Your task to perform on an android device: Show the shopping cart on costco.com. Add "razer blade" to the cart on costco.com Image 0: 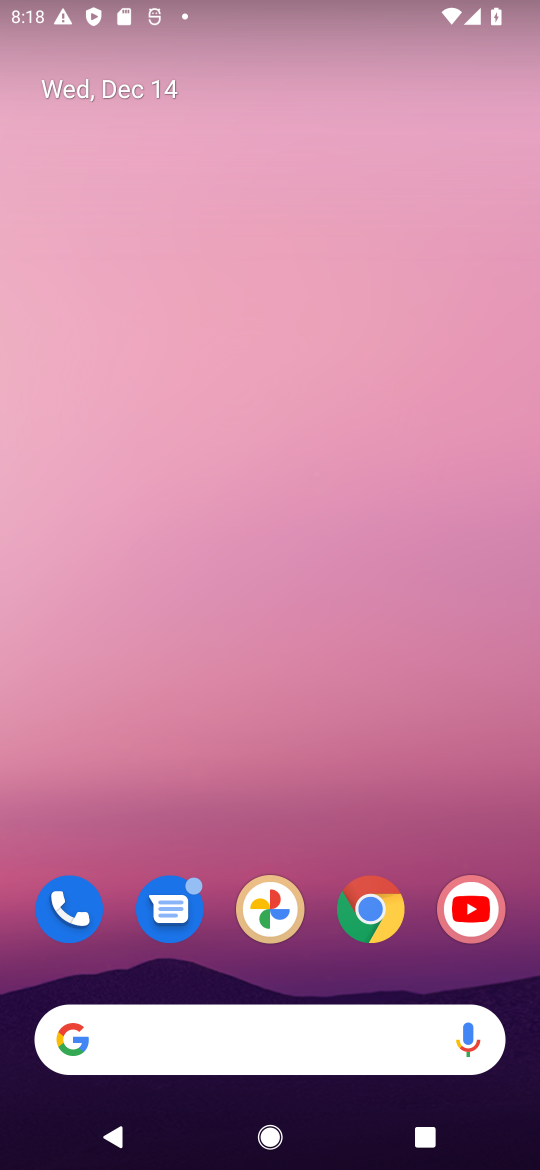
Step 0: click (352, 901)
Your task to perform on an android device: Show the shopping cart on costco.com. Add "razer blade" to the cart on costco.com Image 1: 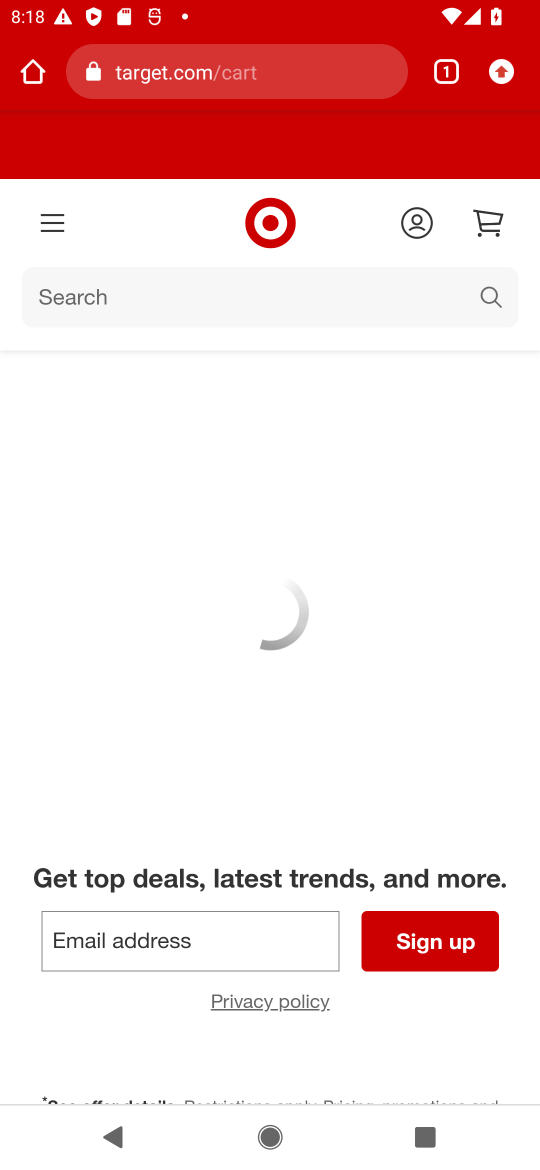
Step 1: click (28, 66)
Your task to perform on an android device: Show the shopping cart on costco.com. Add "razer blade" to the cart on costco.com Image 2: 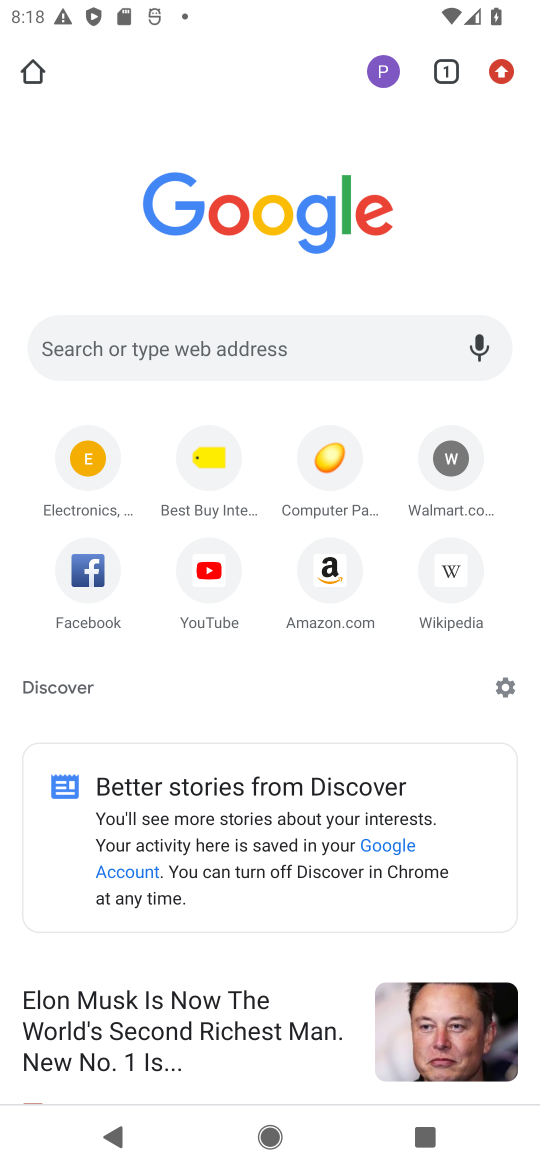
Step 2: click (295, 352)
Your task to perform on an android device: Show the shopping cart on costco.com. Add "razer blade" to the cart on costco.com Image 3: 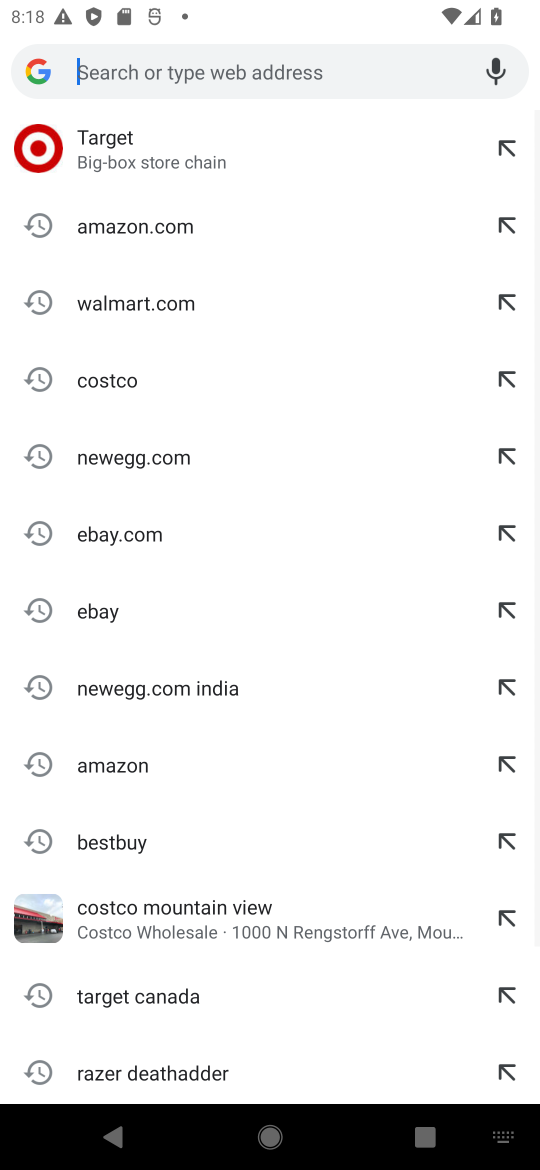
Step 3: click (94, 376)
Your task to perform on an android device: Show the shopping cart on costco.com. Add "razer blade" to the cart on costco.com Image 4: 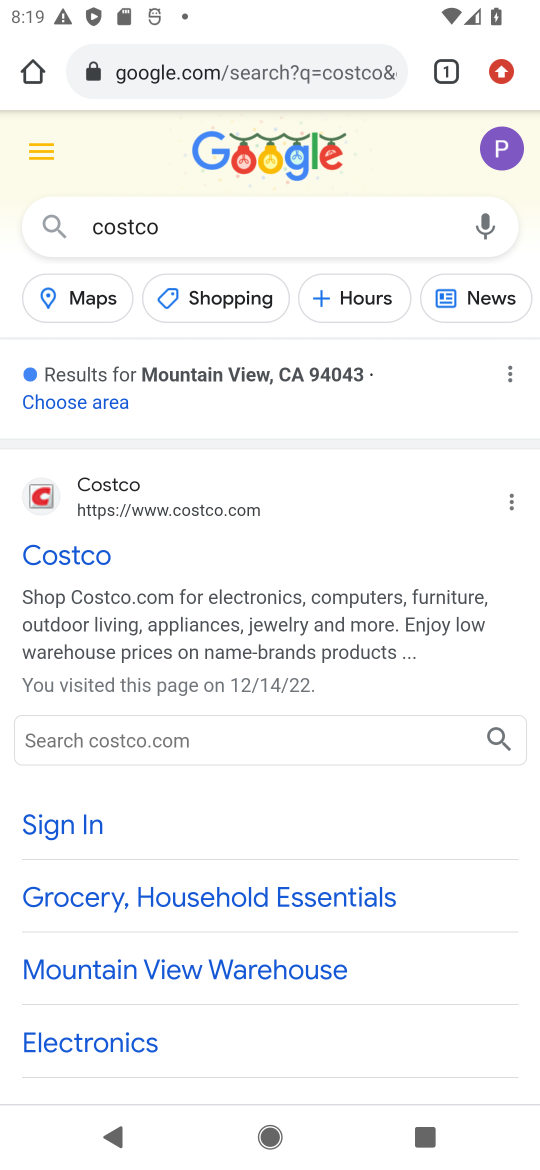
Step 4: click (156, 504)
Your task to perform on an android device: Show the shopping cart on costco.com. Add "razer blade" to the cart on costco.com Image 5: 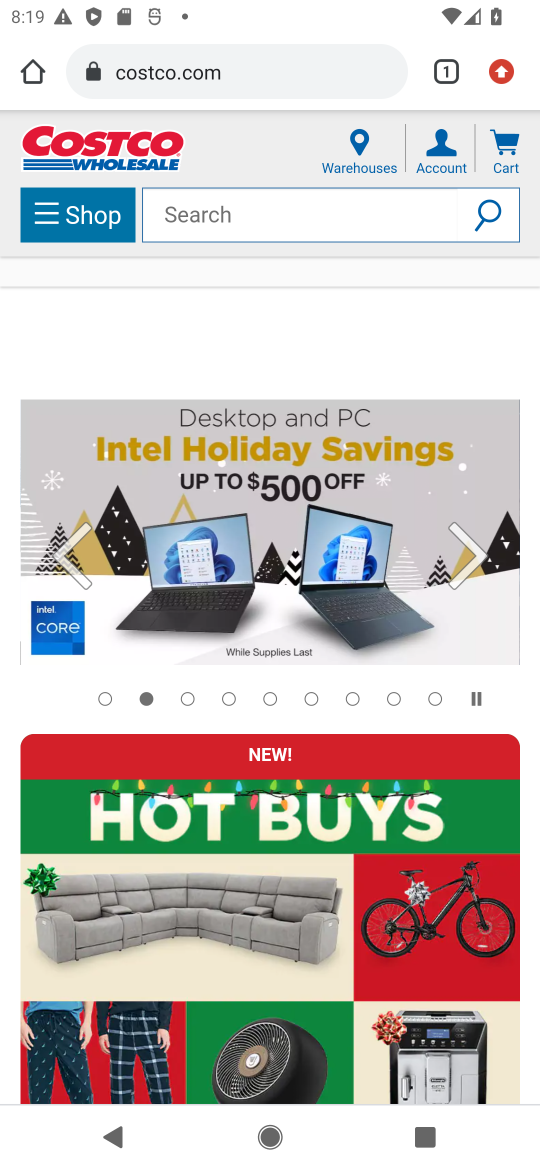
Step 5: click (509, 156)
Your task to perform on an android device: Show the shopping cart on costco.com. Add "razer blade" to the cart on costco.com Image 6: 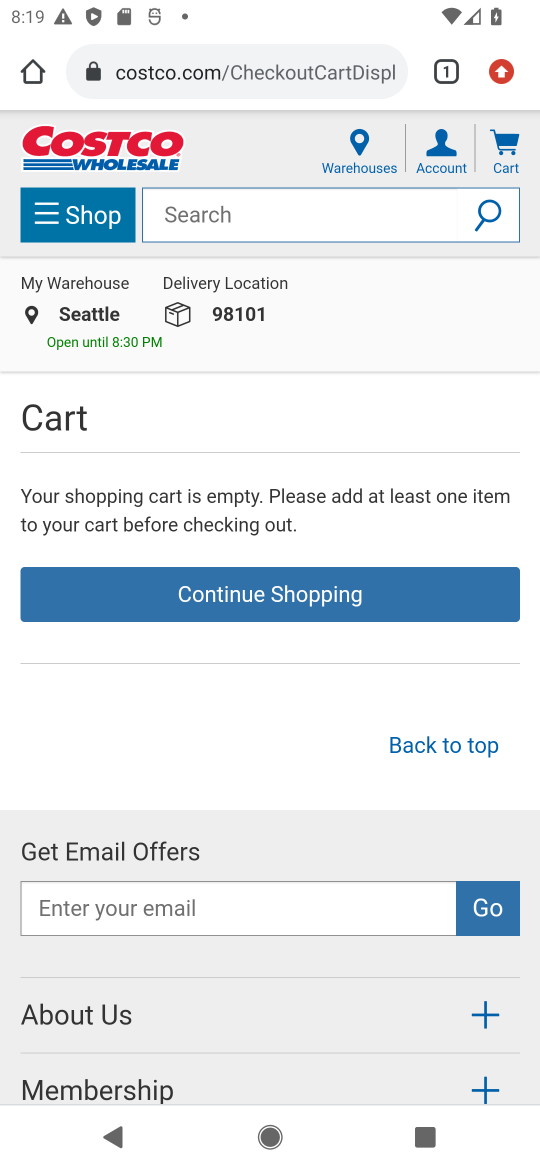
Step 6: click (374, 219)
Your task to perform on an android device: Show the shopping cart on costco.com. Add "razer blade" to the cart on costco.com Image 7: 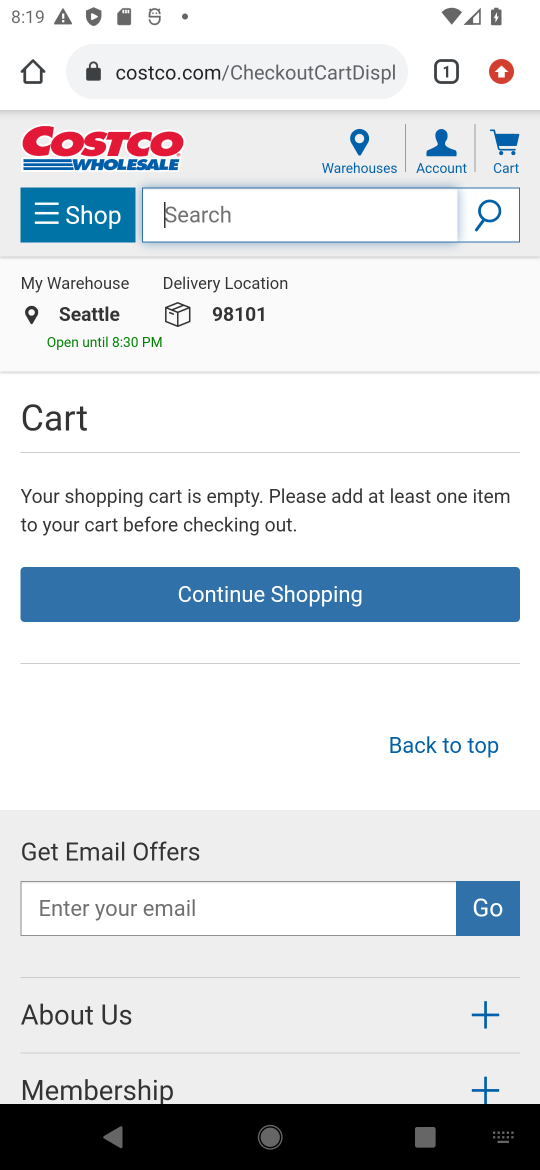
Step 7: type "azer blade"
Your task to perform on an android device: Show the shopping cart on costco.com. Add "razer blade" to the cart on costco.com Image 8: 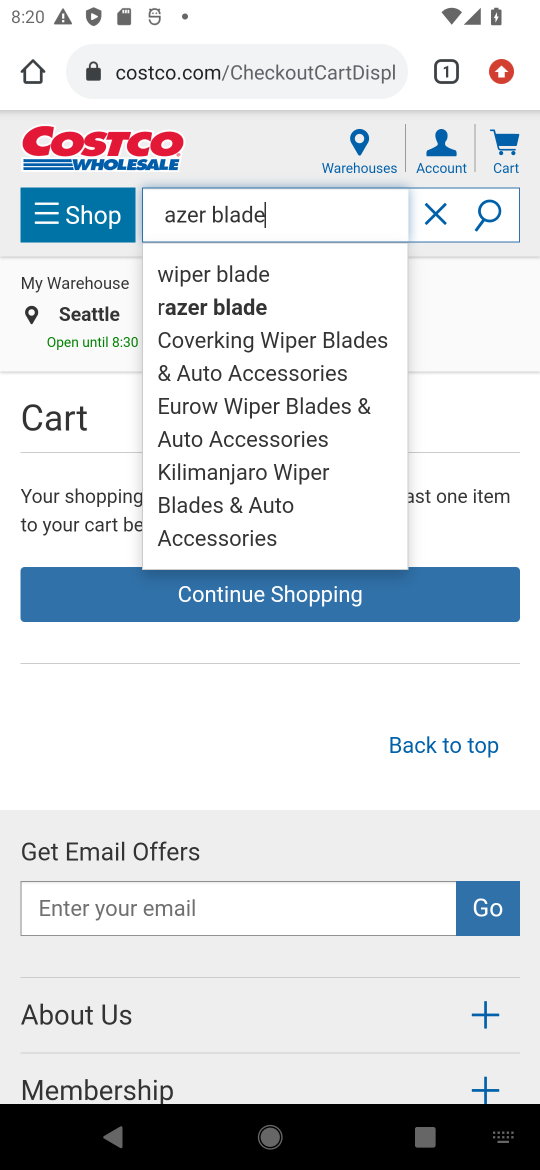
Step 8: click (500, 206)
Your task to perform on an android device: Show the shopping cart on costco.com. Add "razer blade" to the cart on costco.com Image 9: 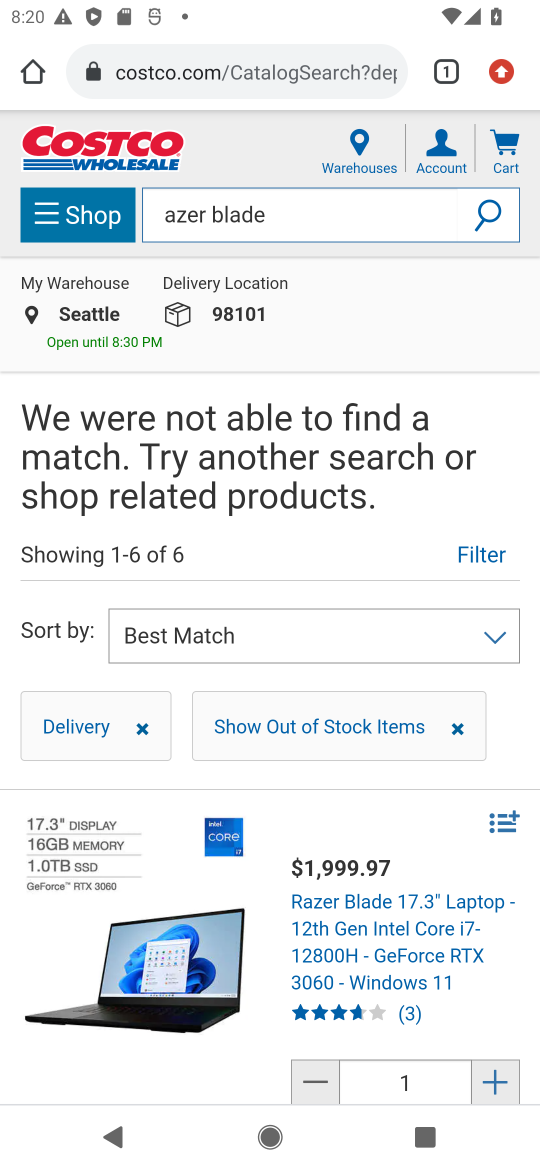
Step 9: click (165, 948)
Your task to perform on an android device: Show the shopping cart on costco.com. Add "razer blade" to the cart on costco.com Image 10: 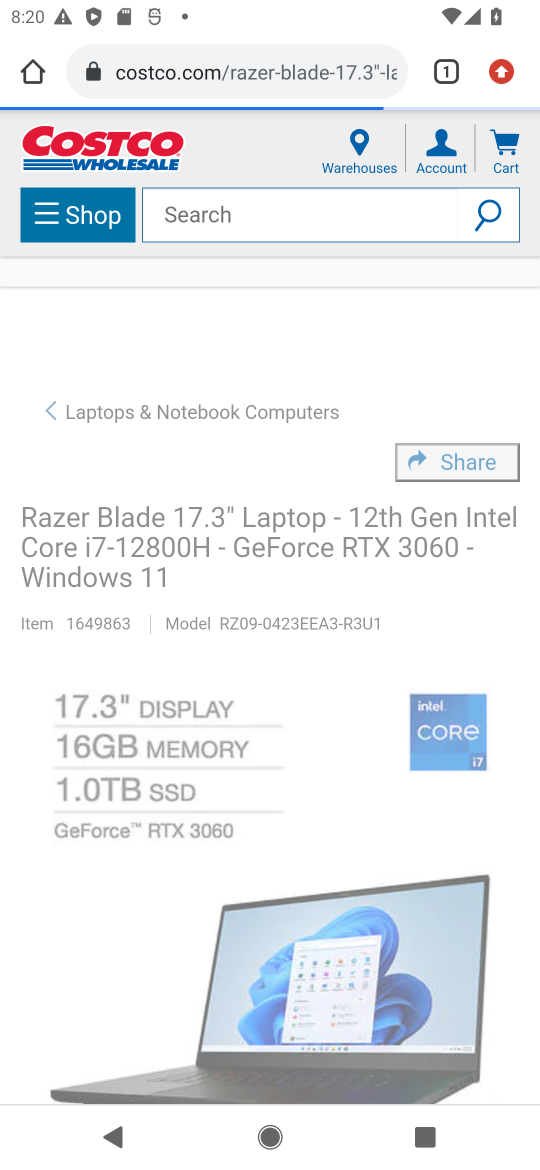
Step 10: drag from (224, 929) to (279, 335)
Your task to perform on an android device: Show the shopping cart on costco.com. Add "razer blade" to the cart on costco.com Image 11: 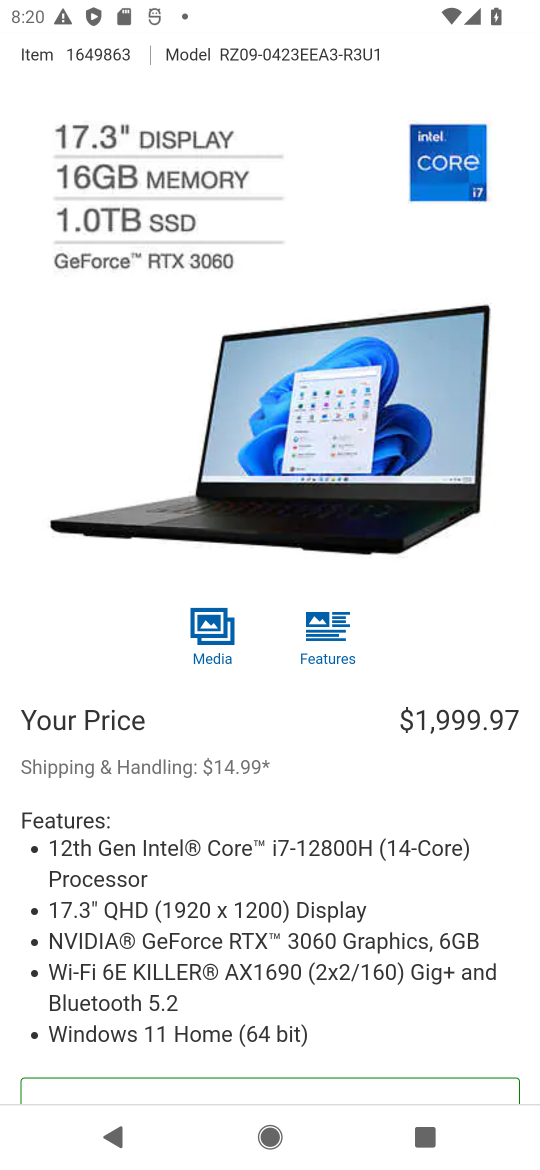
Step 11: drag from (339, 906) to (395, 305)
Your task to perform on an android device: Show the shopping cart on costco.com. Add "razer blade" to the cart on costco.com Image 12: 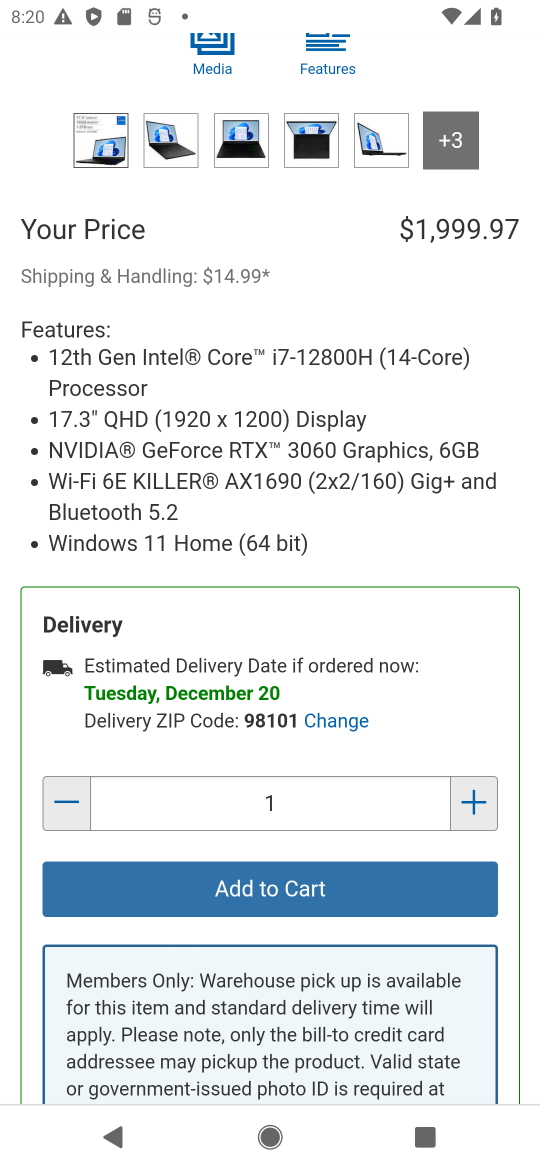
Step 12: click (264, 891)
Your task to perform on an android device: Show the shopping cart on costco.com. Add "razer blade" to the cart on costco.com Image 13: 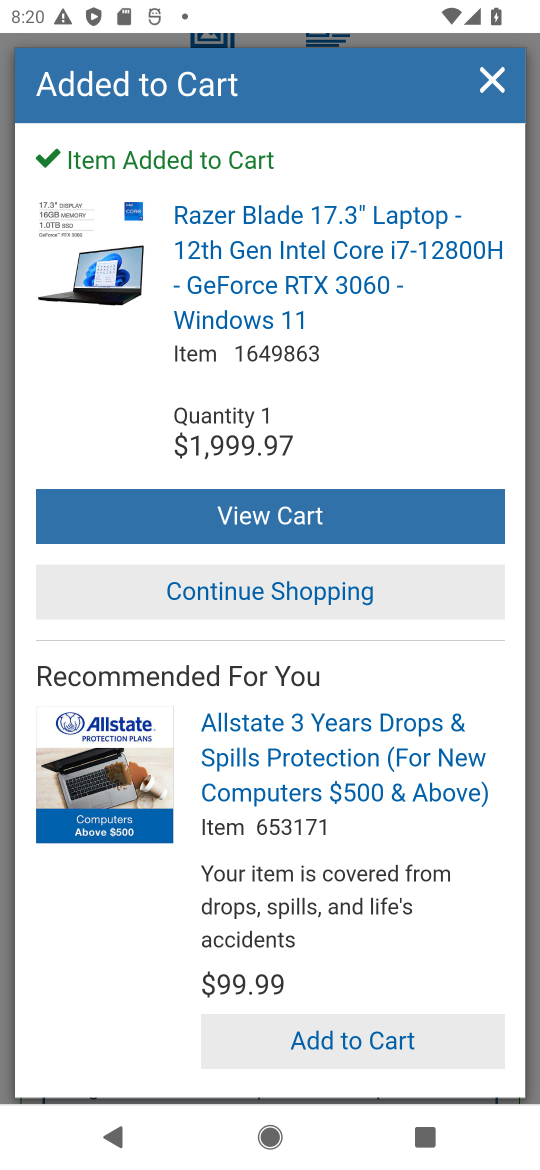
Step 13: click (312, 518)
Your task to perform on an android device: Show the shopping cart on costco.com. Add "razer blade" to the cart on costco.com Image 14: 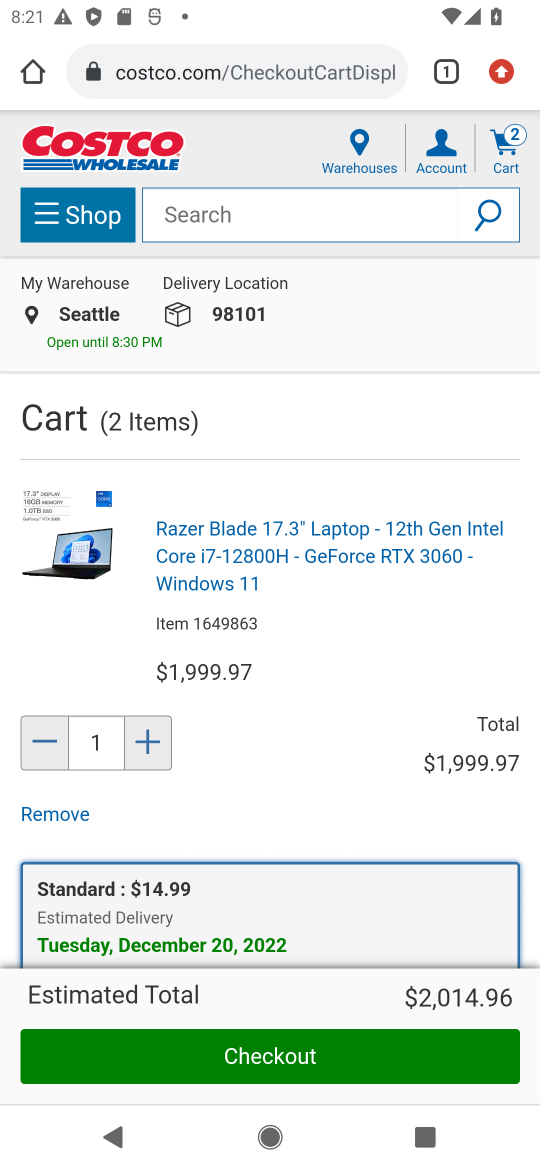
Step 14: task complete